Your task to perform on an android device: Open the stopwatch Image 0: 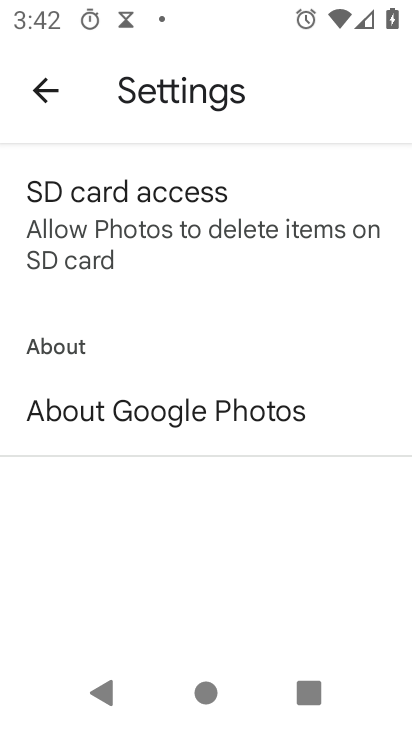
Step 0: click (397, 553)
Your task to perform on an android device: Open the stopwatch Image 1: 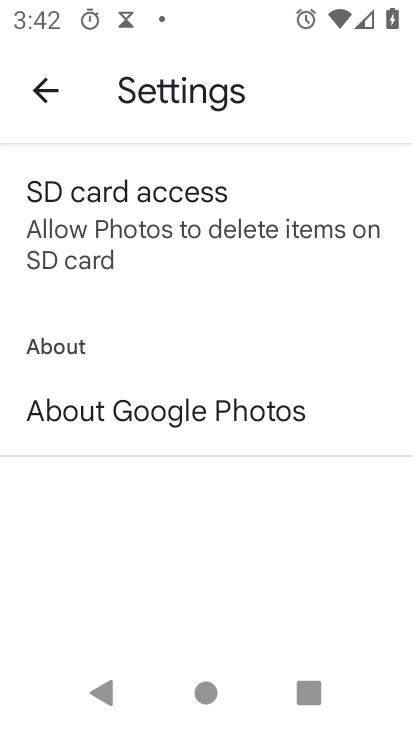
Step 1: press home button
Your task to perform on an android device: Open the stopwatch Image 2: 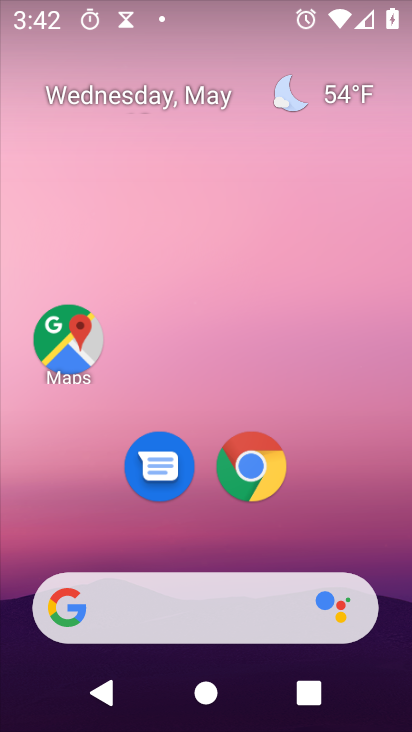
Step 2: drag from (391, 554) to (245, 171)
Your task to perform on an android device: Open the stopwatch Image 3: 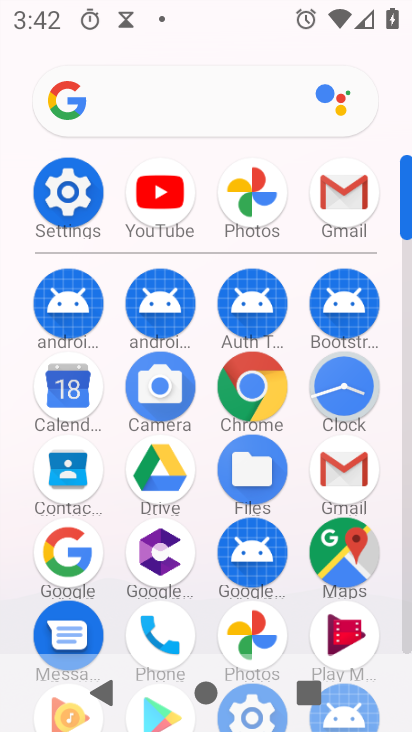
Step 3: click (324, 372)
Your task to perform on an android device: Open the stopwatch Image 4: 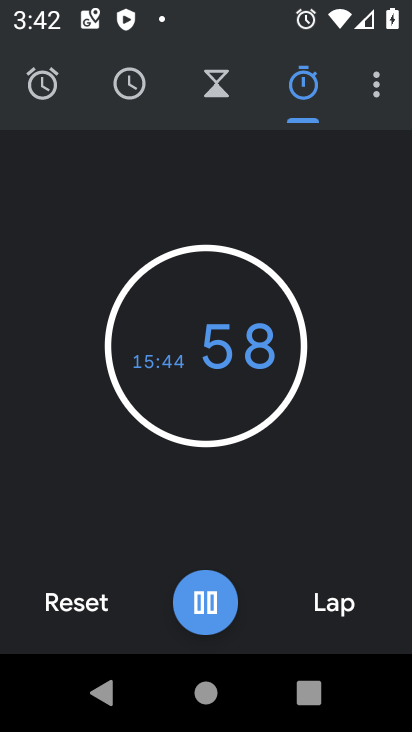
Step 4: task complete